Your task to perform on an android device: find which apps use the phone's location Image 0: 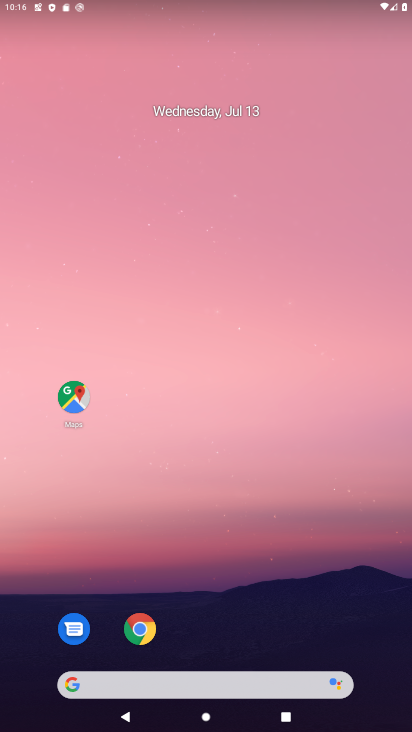
Step 0: drag from (217, 650) to (215, 9)
Your task to perform on an android device: find which apps use the phone's location Image 1: 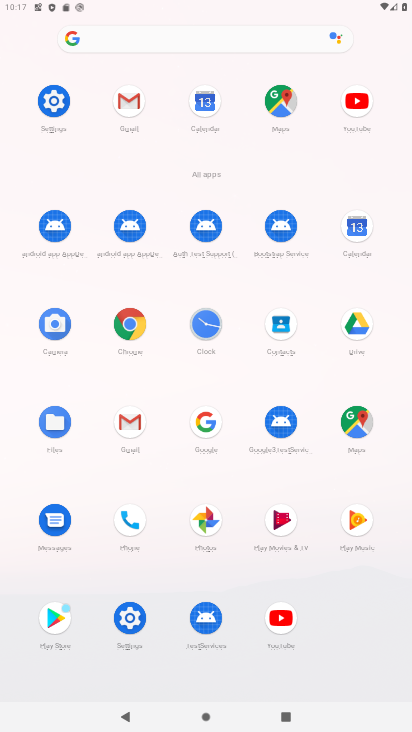
Step 1: click (51, 96)
Your task to perform on an android device: find which apps use the phone's location Image 2: 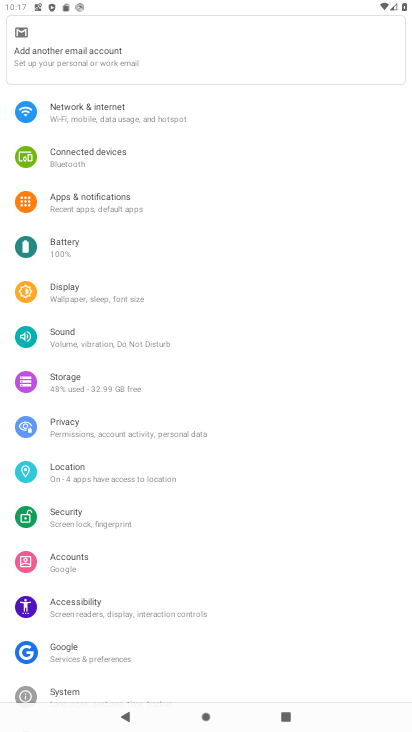
Step 2: click (92, 467)
Your task to perform on an android device: find which apps use the phone's location Image 3: 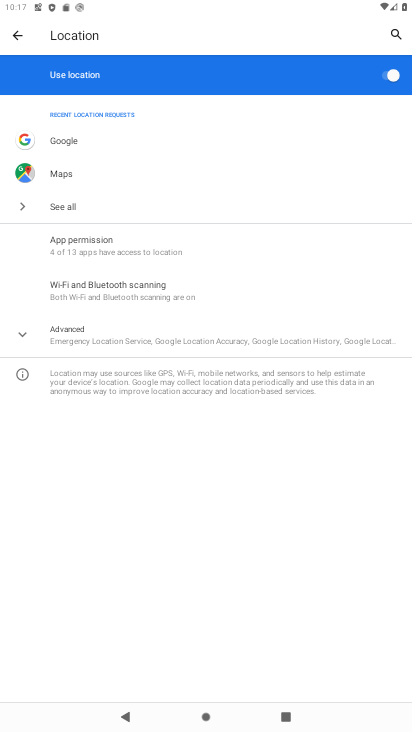
Step 3: click (127, 245)
Your task to perform on an android device: find which apps use the phone's location Image 4: 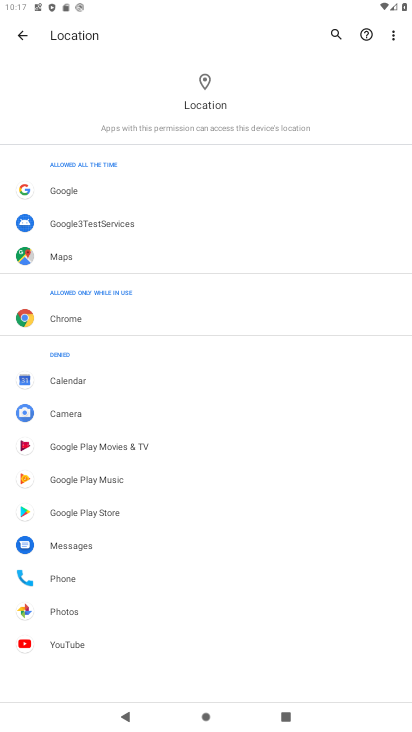
Step 4: task complete